Your task to perform on an android device: Open eBay Image 0: 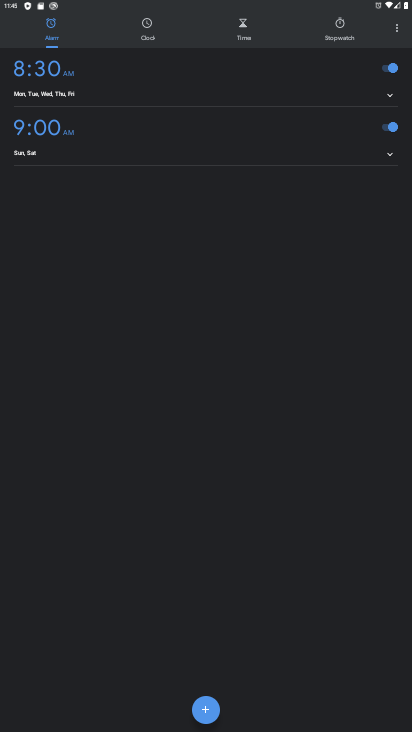
Step 0: press home button
Your task to perform on an android device: Open eBay Image 1: 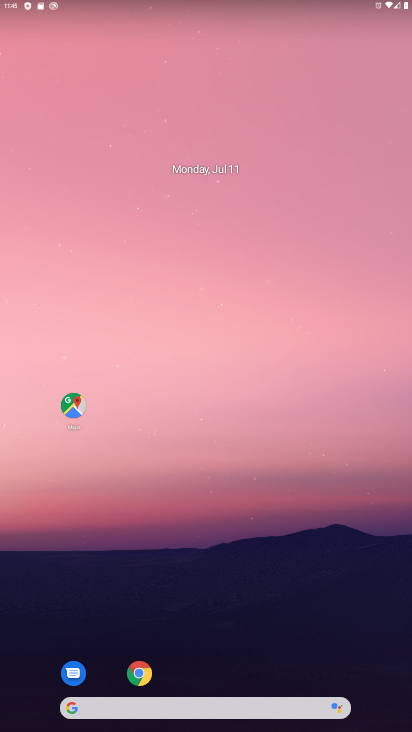
Step 1: click (138, 670)
Your task to perform on an android device: Open eBay Image 2: 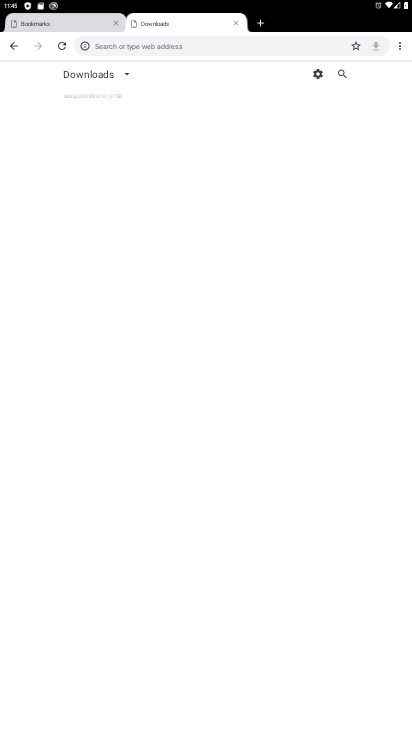
Step 2: click (256, 23)
Your task to perform on an android device: Open eBay Image 3: 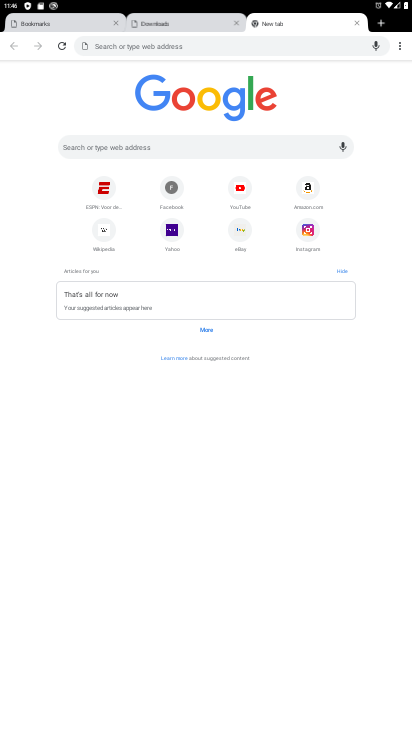
Step 3: click (234, 229)
Your task to perform on an android device: Open eBay Image 4: 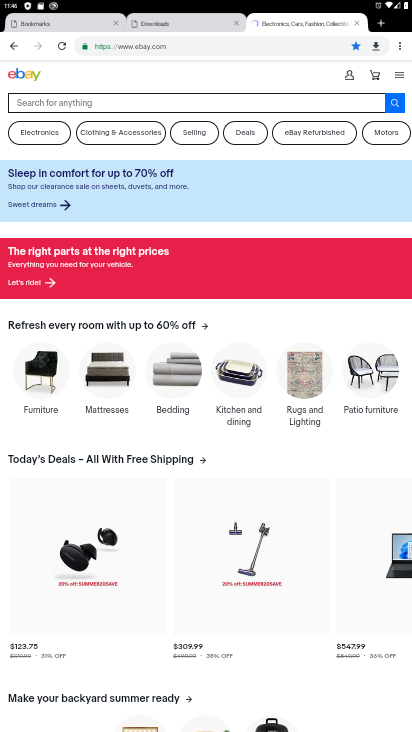
Step 4: task complete